Your task to perform on an android device: Open calendar and show me the third week of next month Image 0: 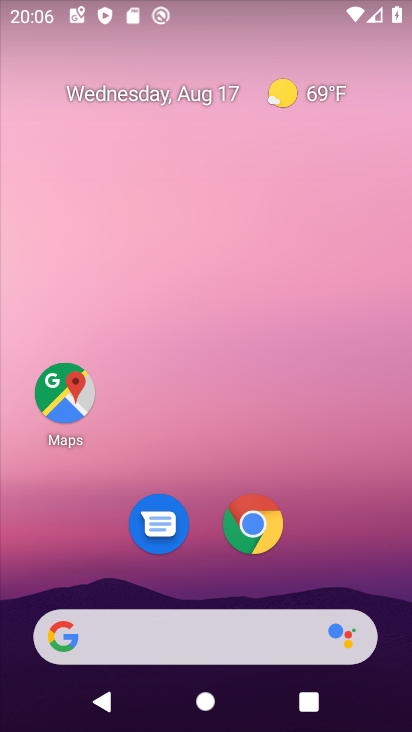
Step 0: drag from (348, 546) to (336, 111)
Your task to perform on an android device: Open calendar and show me the third week of next month Image 1: 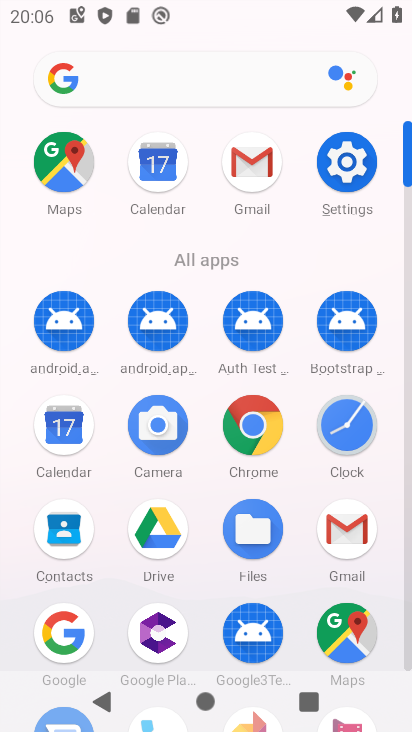
Step 1: click (166, 165)
Your task to perform on an android device: Open calendar and show me the third week of next month Image 2: 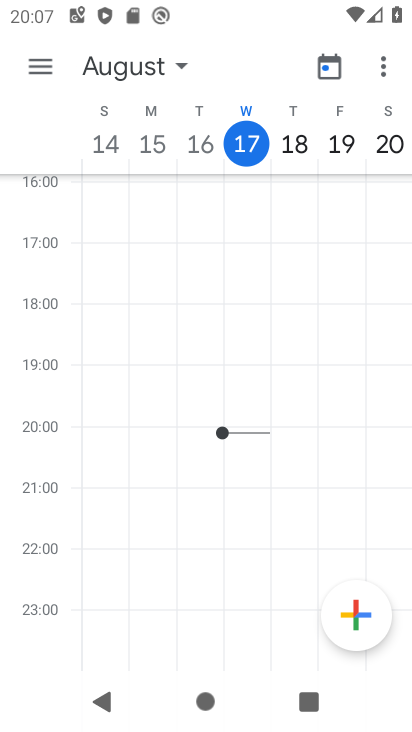
Step 2: click (45, 63)
Your task to perform on an android device: Open calendar and show me the third week of next month Image 3: 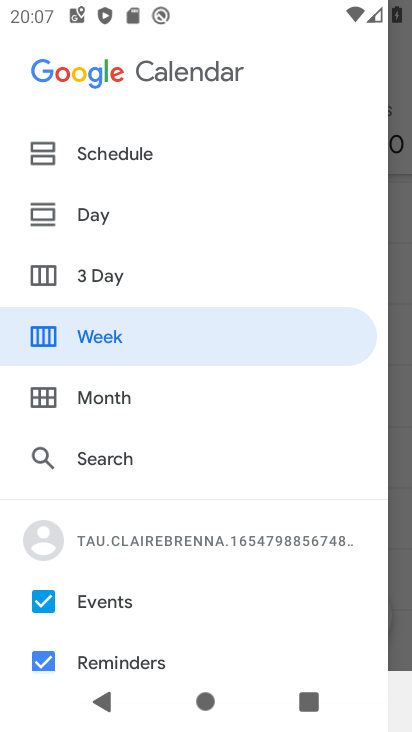
Step 3: click (94, 404)
Your task to perform on an android device: Open calendar and show me the third week of next month Image 4: 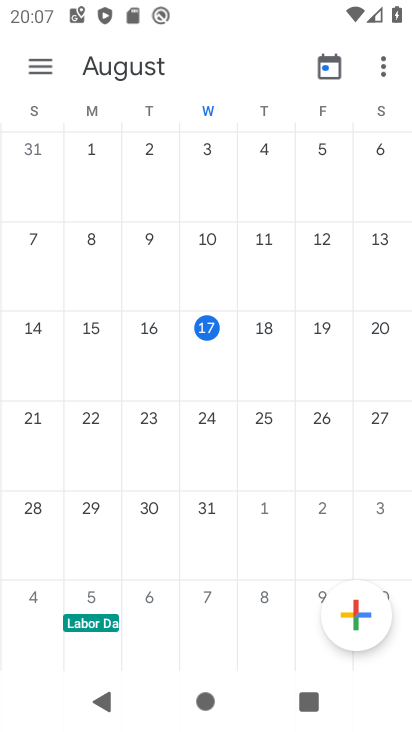
Step 4: drag from (372, 369) to (1, 344)
Your task to perform on an android device: Open calendar and show me the third week of next month Image 5: 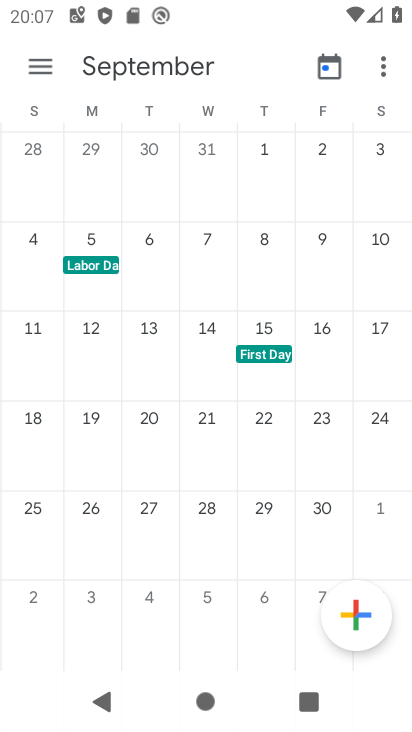
Step 5: click (33, 414)
Your task to perform on an android device: Open calendar and show me the third week of next month Image 6: 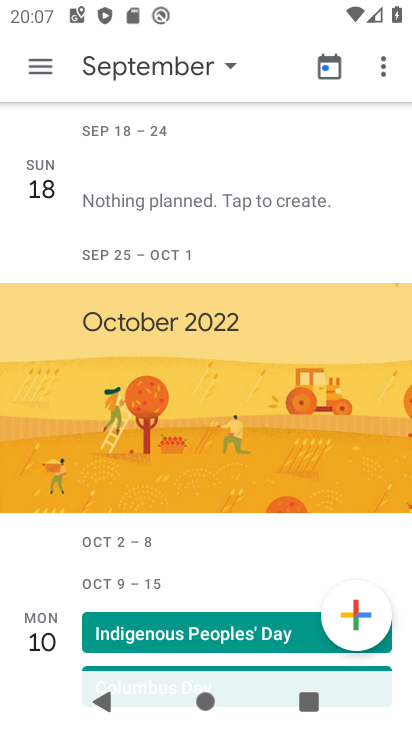
Step 6: click (41, 59)
Your task to perform on an android device: Open calendar and show me the third week of next month Image 7: 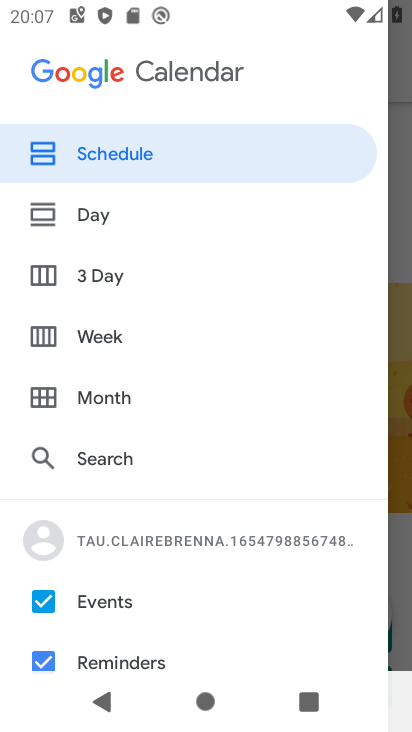
Step 7: click (41, 328)
Your task to perform on an android device: Open calendar and show me the third week of next month Image 8: 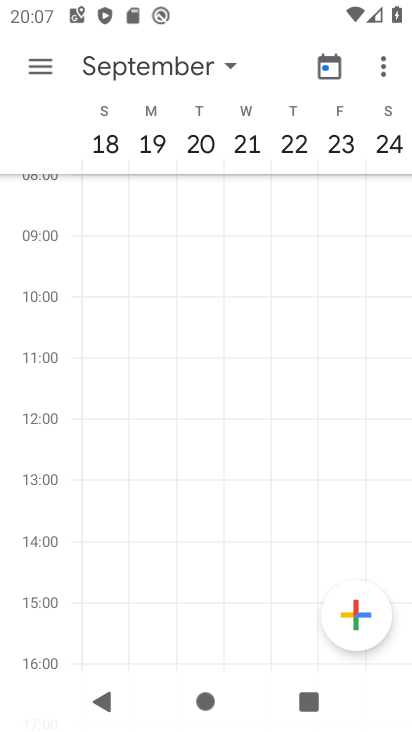
Step 8: task complete